Your task to perform on an android device: move a message to another label in the gmail app Image 0: 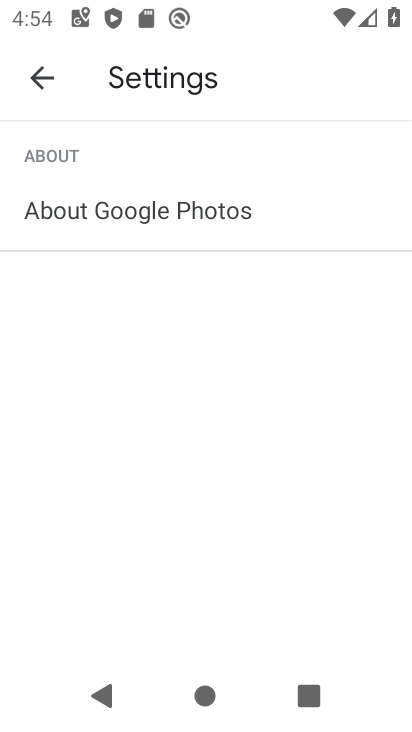
Step 0: press home button
Your task to perform on an android device: move a message to another label in the gmail app Image 1: 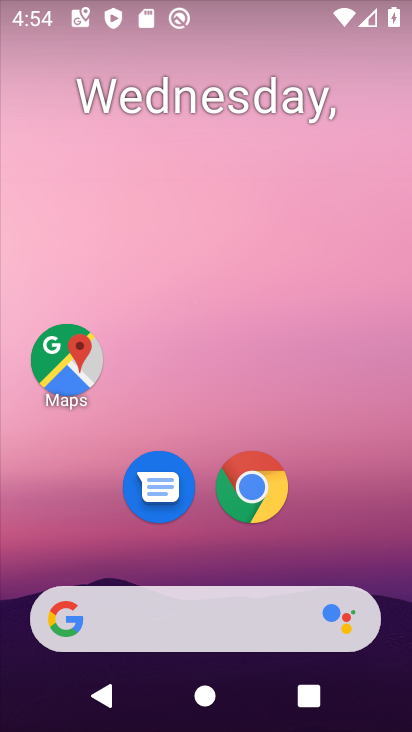
Step 1: drag from (226, 587) to (225, 208)
Your task to perform on an android device: move a message to another label in the gmail app Image 2: 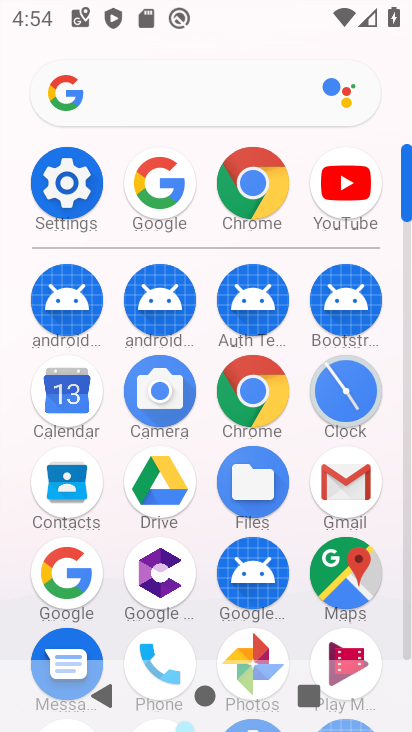
Step 2: click (333, 494)
Your task to perform on an android device: move a message to another label in the gmail app Image 3: 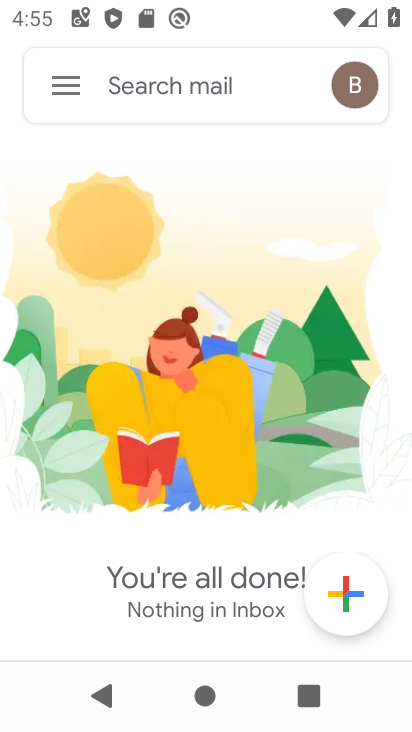
Step 3: click (86, 86)
Your task to perform on an android device: move a message to another label in the gmail app Image 4: 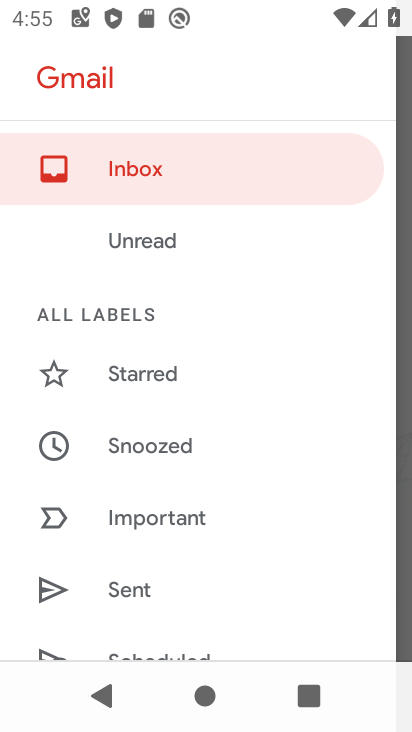
Step 4: drag from (167, 510) to (195, 95)
Your task to perform on an android device: move a message to another label in the gmail app Image 5: 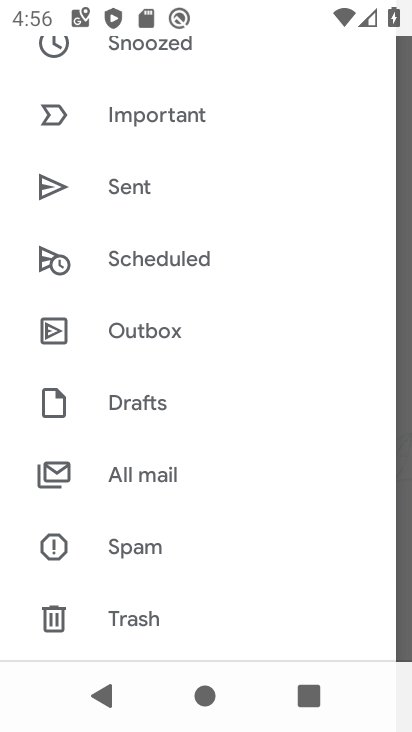
Step 5: click (169, 481)
Your task to perform on an android device: move a message to another label in the gmail app Image 6: 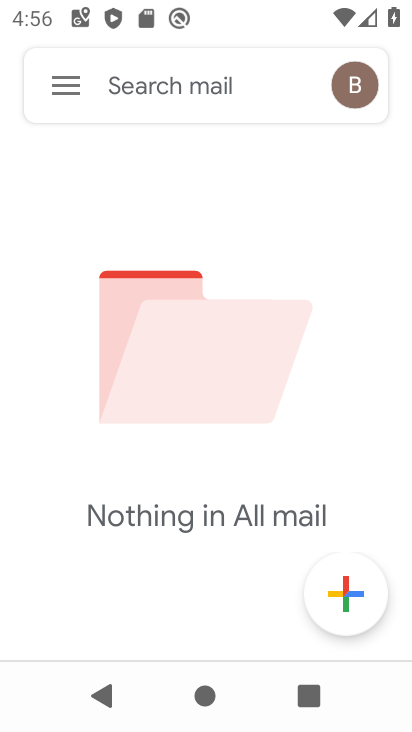
Step 6: task complete